Your task to perform on an android device: turn on location history Image 0: 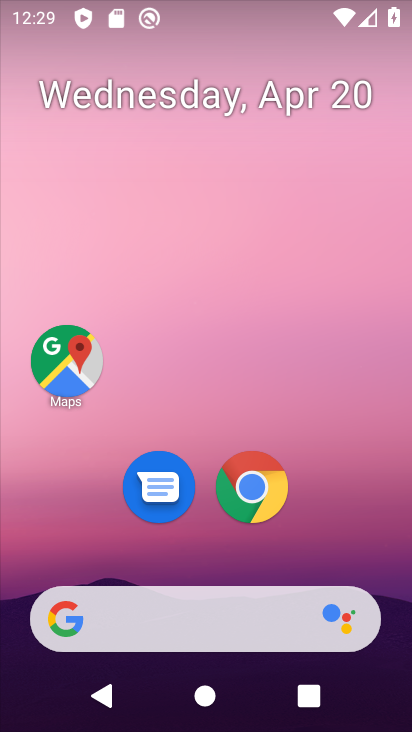
Step 0: drag from (308, 455) to (242, 110)
Your task to perform on an android device: turn on location history Image 1: 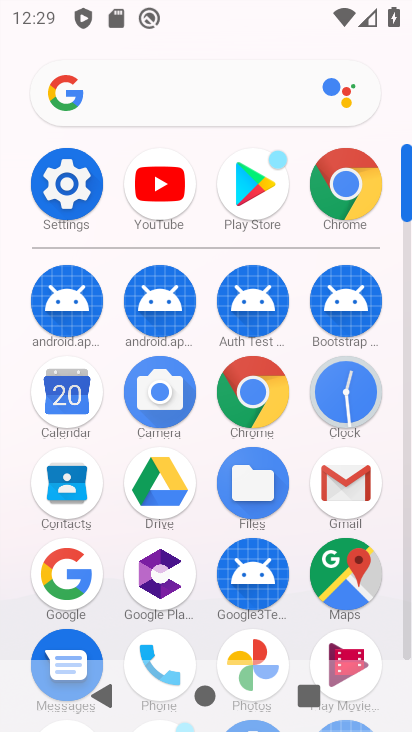
Step 1: click (70, 184)
Your task to perform on an android device: turn on location history Image 2: 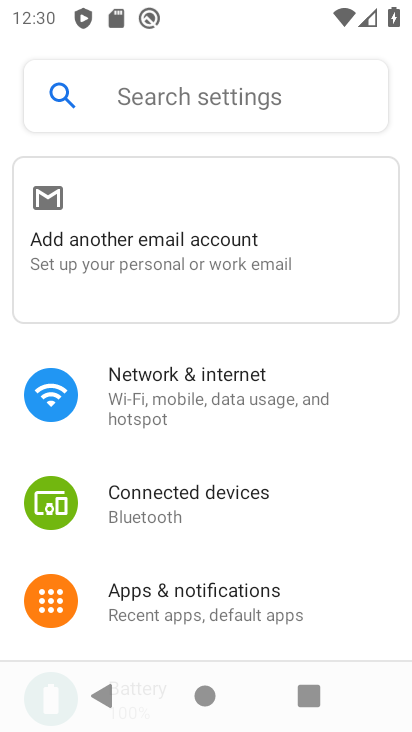
Step 2: drag from (95, 576) to (182, 149)
Your task to perform on an android device: turn on location history Image 3: 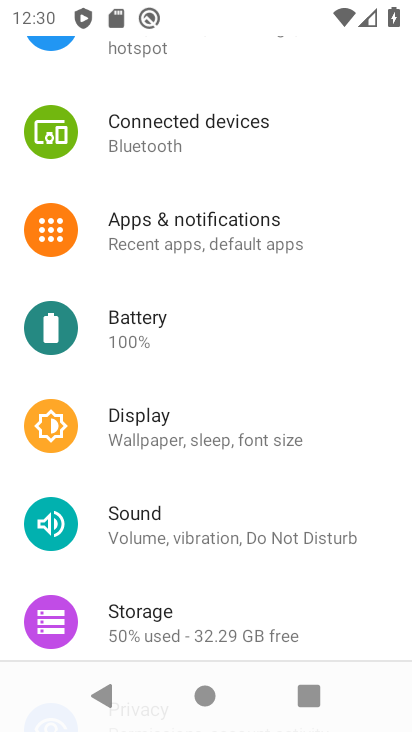
Step 3: drag from (145, 587) to (201, 219)
Your task to perform on an android device: turn on location history Image 4: 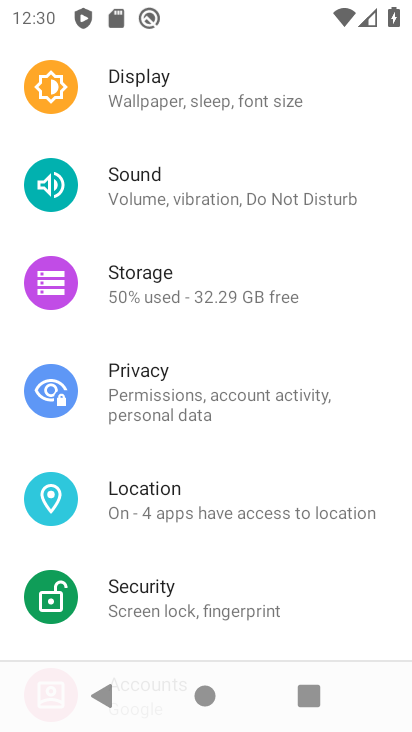
Step 4: click (172, 496)
Your task to perform on an android device: turn on location history Image 5: 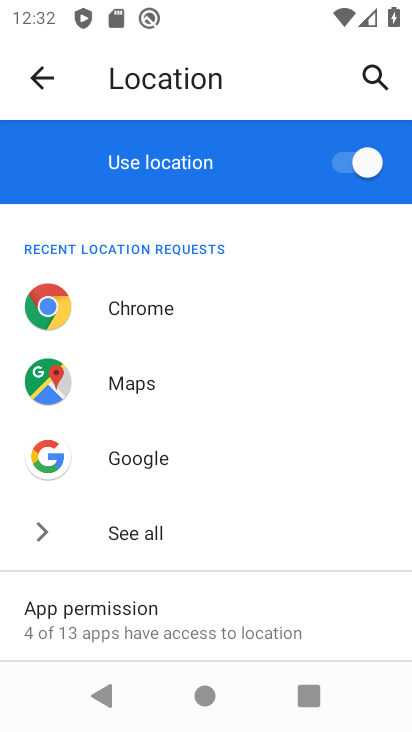
Step 5: drag from (151, 563) to (219, 153)
Your task to perform on an android device: turn on location history Image 6: 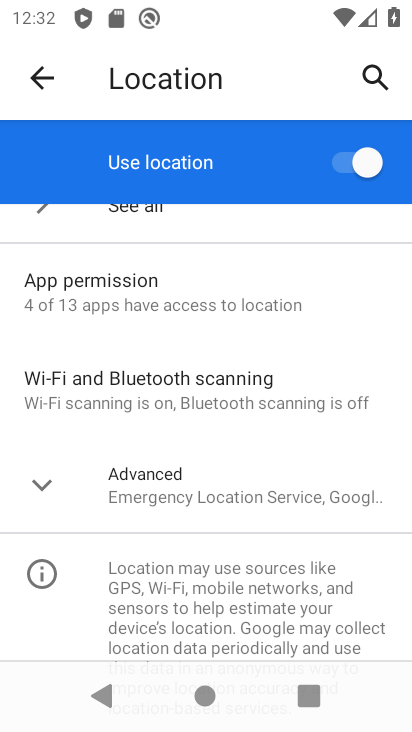
Step 6: click (154, 495)
Your task to perform on an android device: turn on location history Image 7: 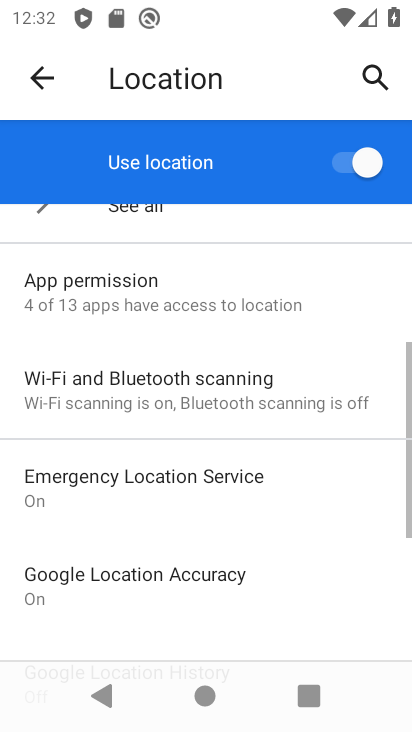
Step 7: drag from (128, 620) to (223, 259)
Your task to perform on an android device: turn on location history Image 8: 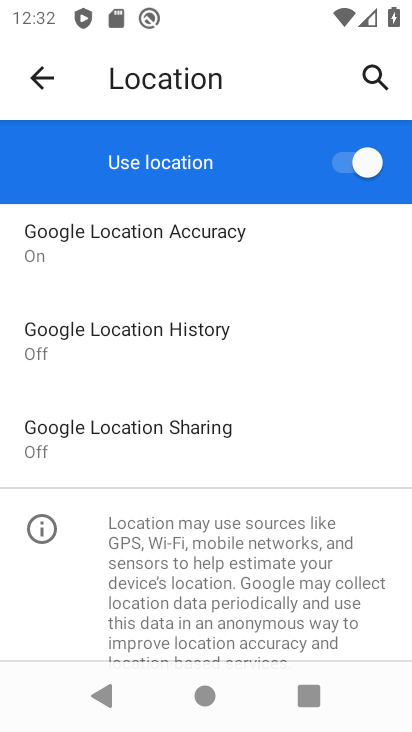
Step 8: click (121, 358)
Your task to perform on an android device: turn on location history Image 9: 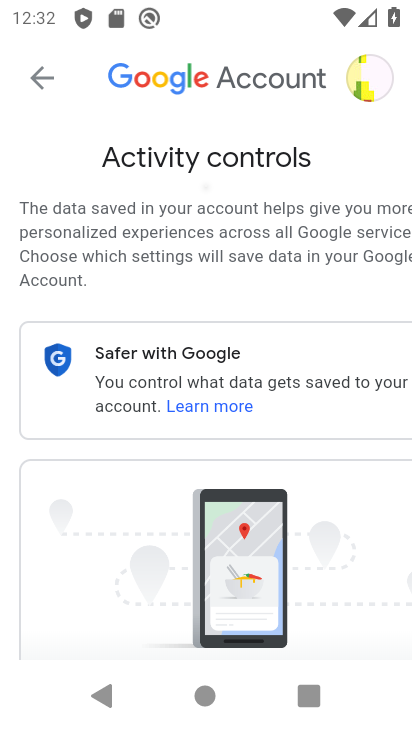
Step 9: drag from (354, 615) to (257, 70)
Your task to perform on an android device: turn on location history Image 10: 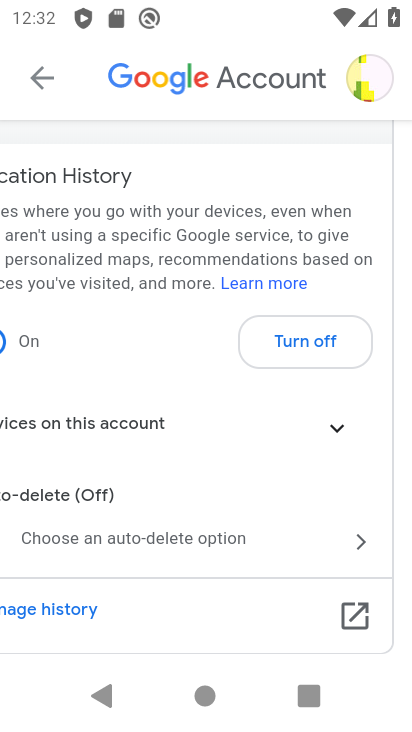
Step 10: click (308, 341)
Your task to perform on an android device: turn on location history Image 11: 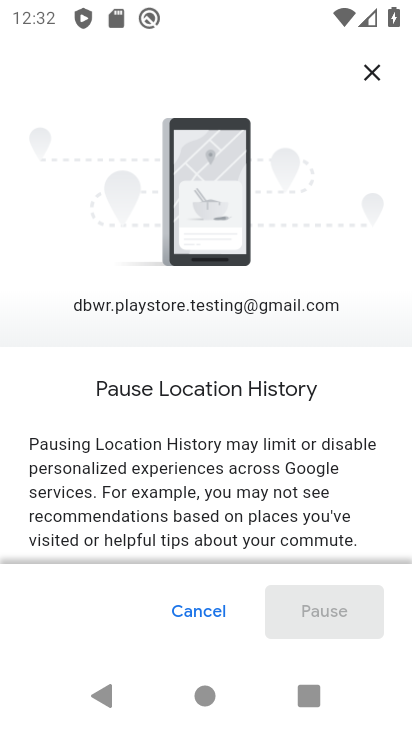
Step 11: task complete